Your task to perform on an android device: Open Chrome and go to the settings page Image 0: 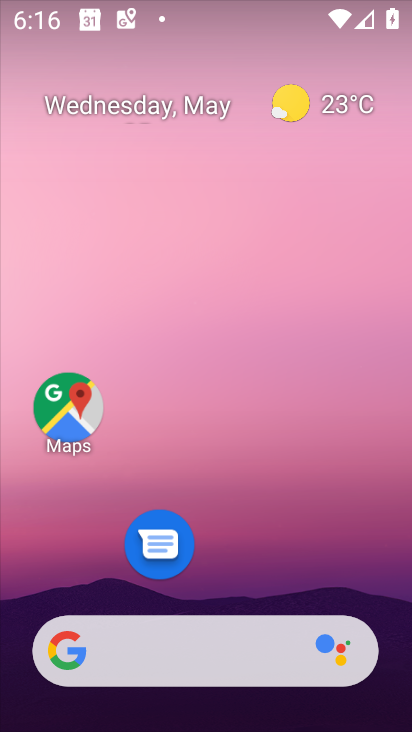
Step 0: drag from (274, 513) to (182, 41)
Your task to perform on an android device: Open Chrome and go to the settings page Image 1: 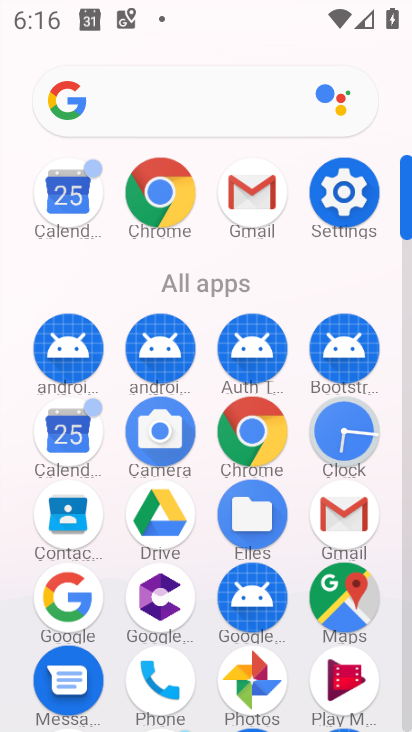
Step 1: click (158, 198)
Your task to perform on an android device: Open Chrome and go to the settings page Image 2: 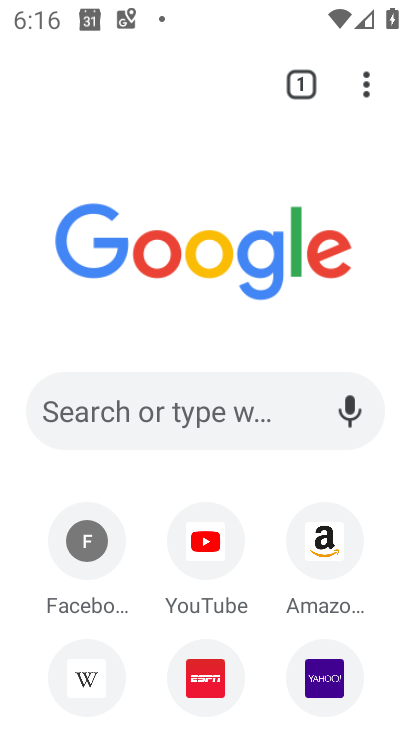
Step 2: click (363, 86)
Your task to perform on an android device: Open Chrome and go to the settings page Image 3: 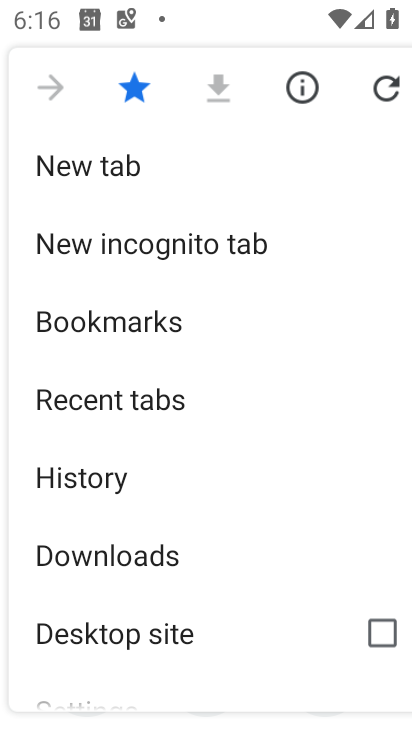
Step 3: drag from (256, 586) to (226, 292)
Your task to perform on an android device: Open Chrome and go to the settings page Image 4: 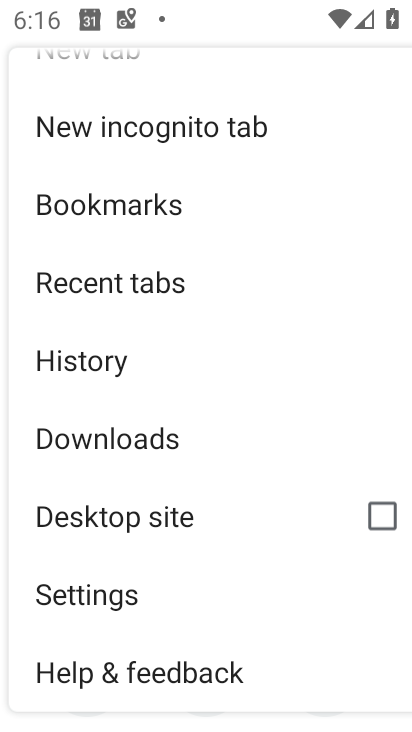
Step 4: click (68, 590)
Your task to perform on an android device: Open Chrome and go to the settings page Image 5: 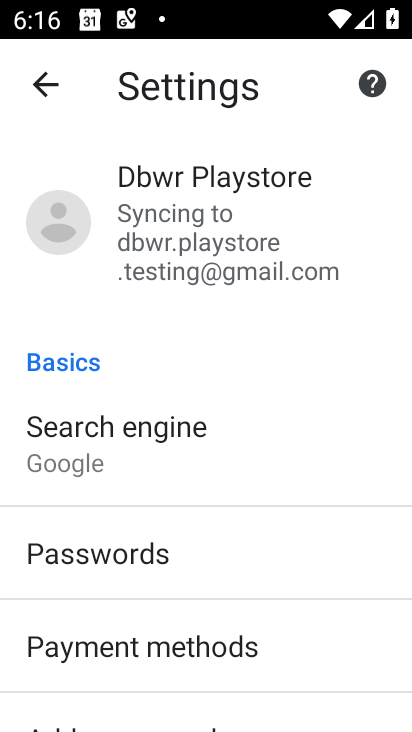
Step 5: task complete